Your task to perform on an android device: check the backup settings in the google photos Image 0: 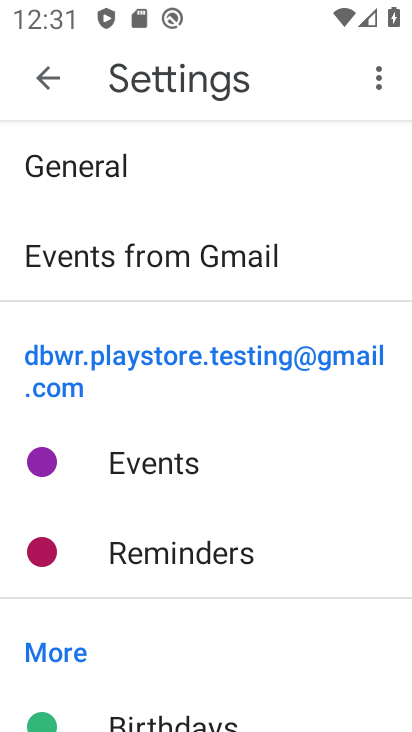
Step 0: press back button
Your task to perform on an android device: check the backup settings in the google photos Image 1: 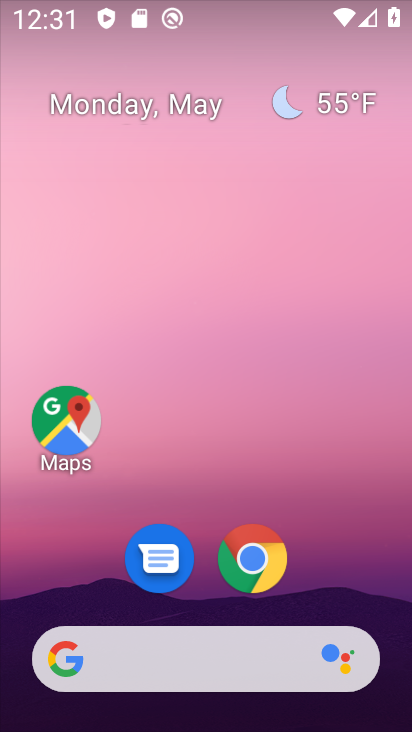
Step 1: drag from (340, 524) to (188, 16)
Your task to perform on an android device: check the backup settings in the google photos Image 2: 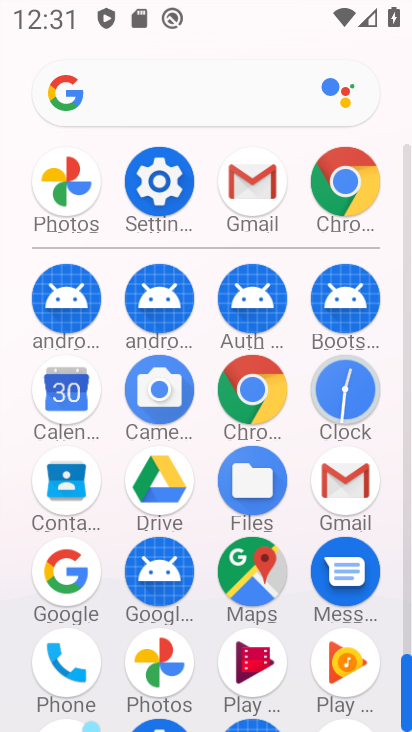
Step 2: drag from (7, 547) to (20, 208)
Your task to perform on an android device: check the backup settings in the google photos Image 3: 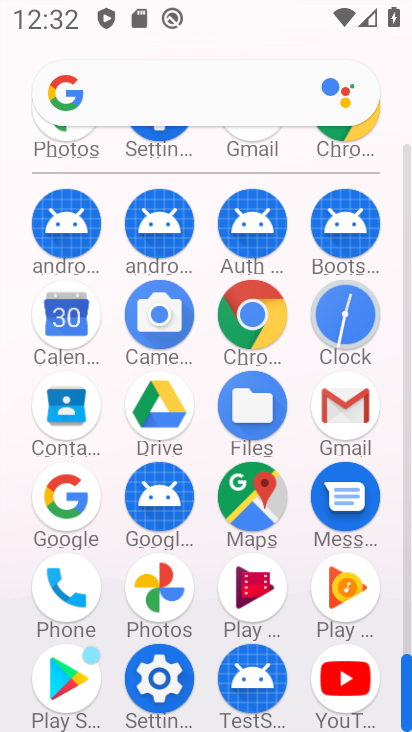
Step 3: click (160, 587)
Your task to perform on an android device: check the backup settings in the google photos Image 4: 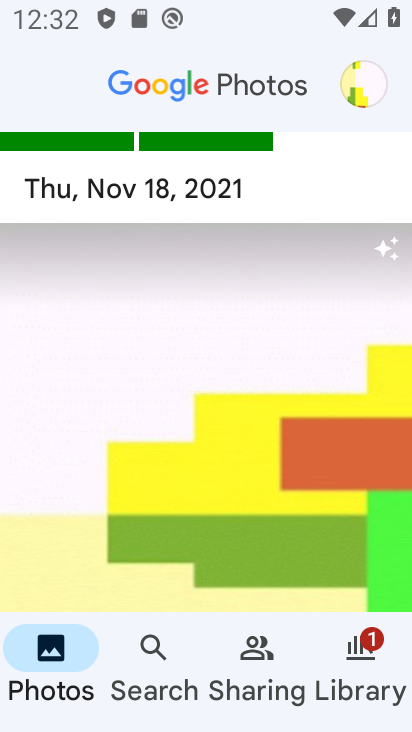
Step 4: click (361, 72)
Your task to perform on an android device: check the backup settings in the google photos Image 5: 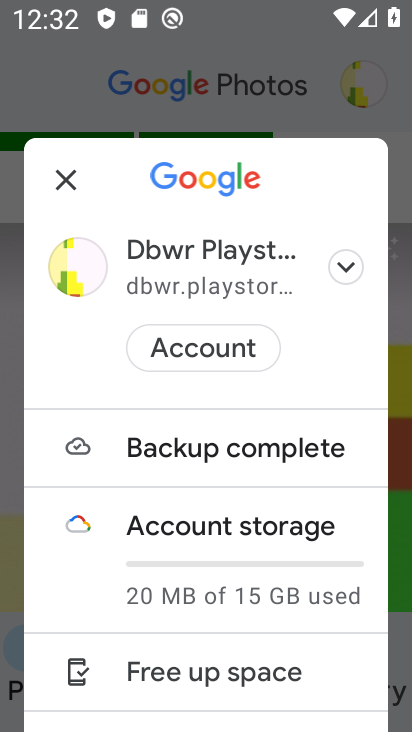
Step 5: drag from (302, 603) to (274, 182)
Your task to perform on an android device: check the backup settings in the google photos Image 6: 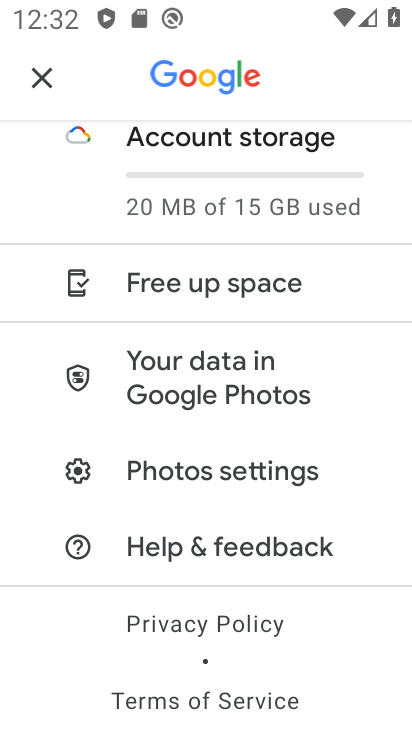
Step 6: click (243, 467)
Your task to perform on an android device: check the backup settings in the google photos Image 7: 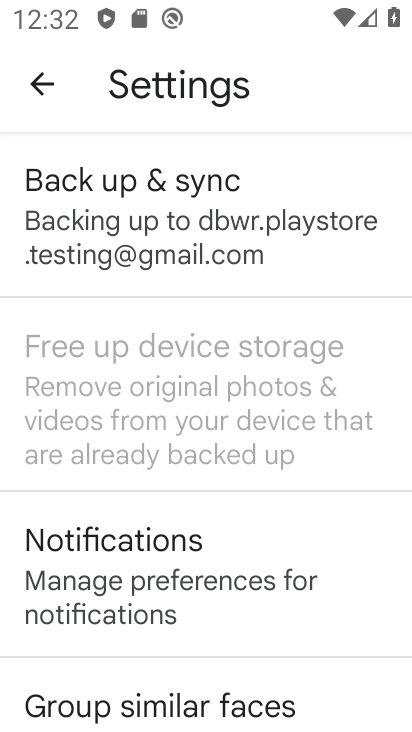
Step 7: click (220, 225)
Your task to perform on an android device: check the backup settings in the google photos Image 8: 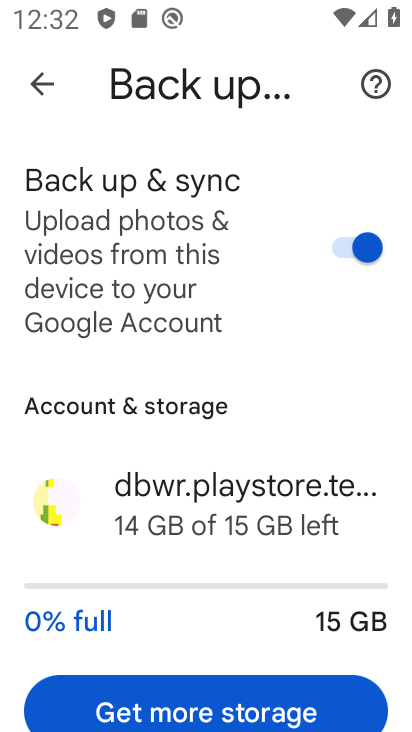
Step 8: drag from (235, 501) to (255, 126)
Your task to perform on an android device: check the backup settings in the google photos Image 9: 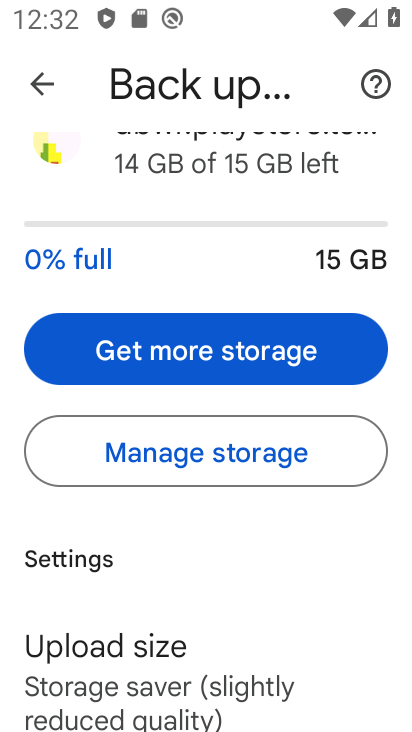
Step 9: drag from (266, 618) to (278, 160)
Your task to perform on an android device: check the backup settings in the google photos Image 10: 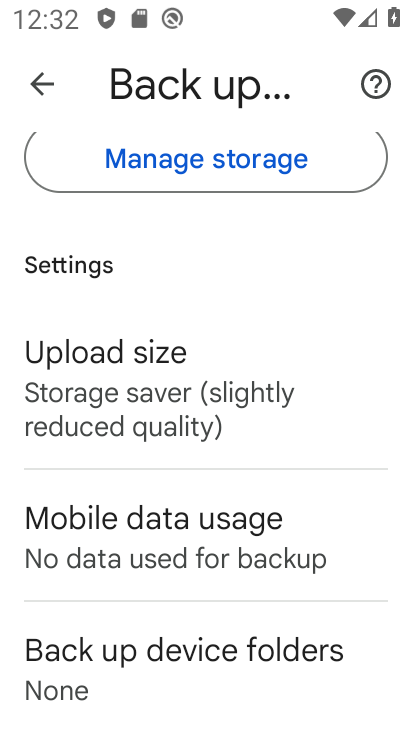
Step 10: click (210, 389)
Your task to perform on an android device: check the backup settings in the google photos Image 11: 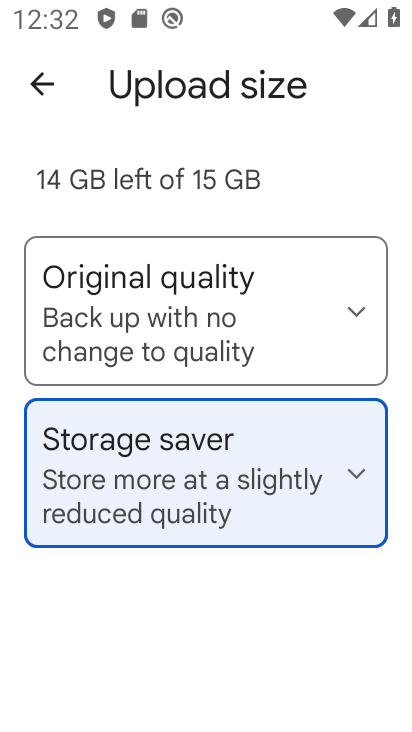
Step 11: click (256, 284)
Your task to perform on an android device: check the backup settings in the google photos Image 12: 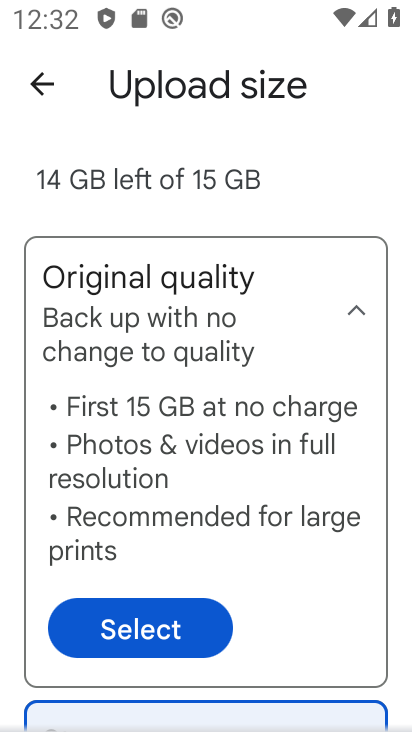
Step 12: drag from (278, 547) to (280, 191)
Your task to perform on an android device: check the backup settings in the google photos Image 13: 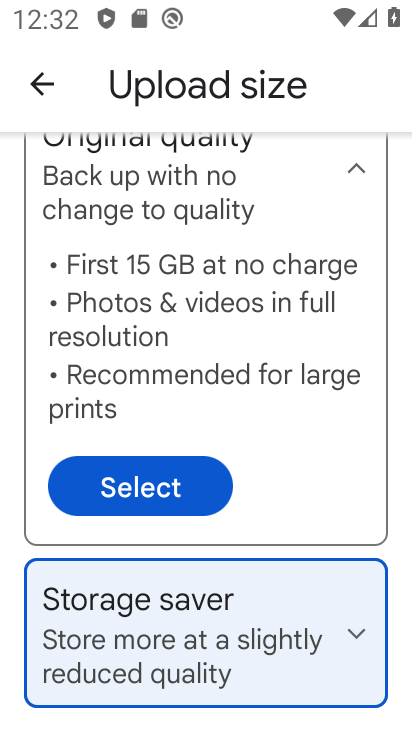
Step 13: drag from (280, 191) to (298, 519)
Your task to perform on an android device: check the backup settings in the google photos Image 14: 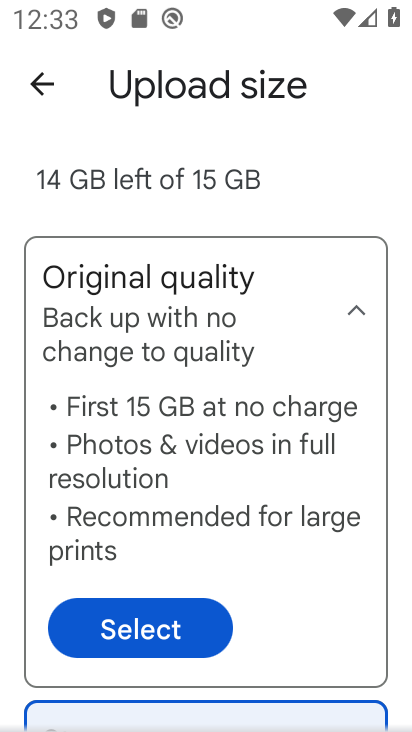
Step 14: click (37, 95)
Your task to perform on an android device: check the backup settings in the google photos Image 15: 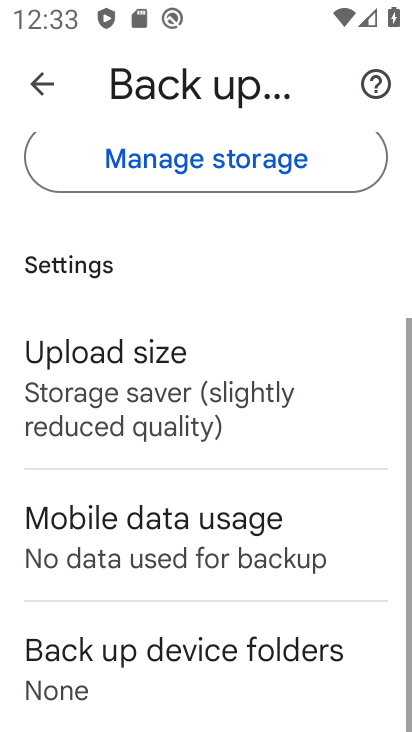
Step 15: task complete